Your task to perform on an android device: refresh tabs in the chrome app Image 0: 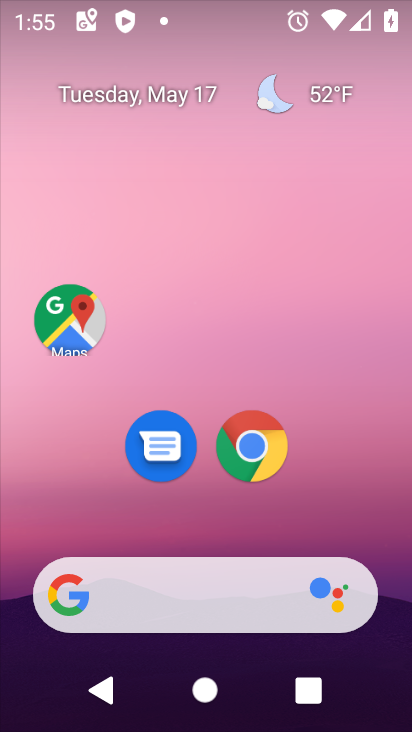
Step 0: click (256, 445)
Your task to perform on an android device: refresh tabs in the chrome app Image 1: 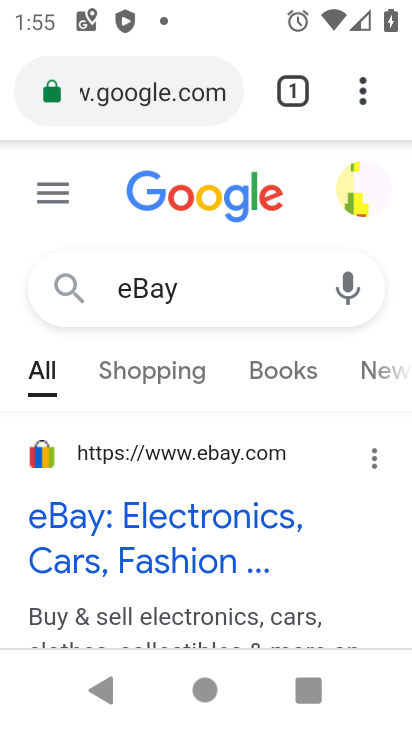
Step 1: click (366, 86)
Your task to perform on an android device: refresh tabs in the chrome app Image 2: 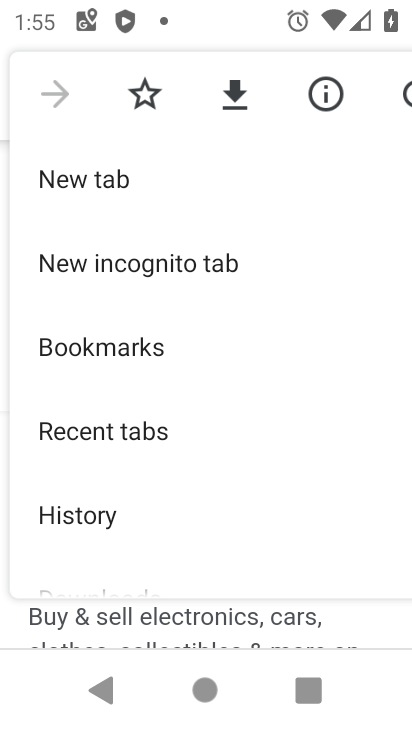
Step 2: click (406, 100)
Your task to perform on an android device: refresh tabs in the chrome app Image 3: 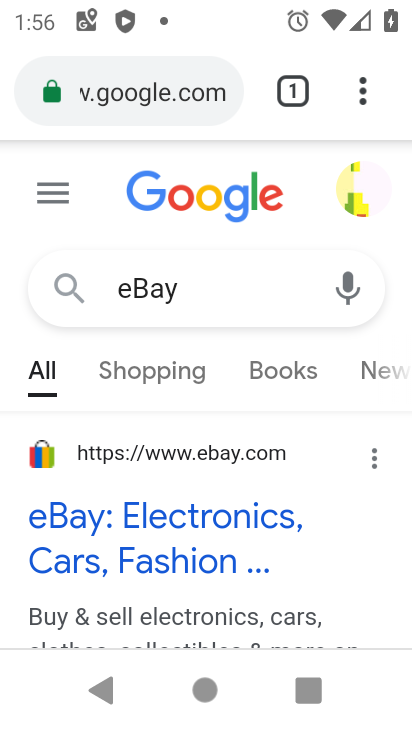
Step 3: task complete